Your task to perform on an android device: Empty the shopping cart on newegg. Add "dell xps" to the cart on newegg, then select checkout. Image 0: 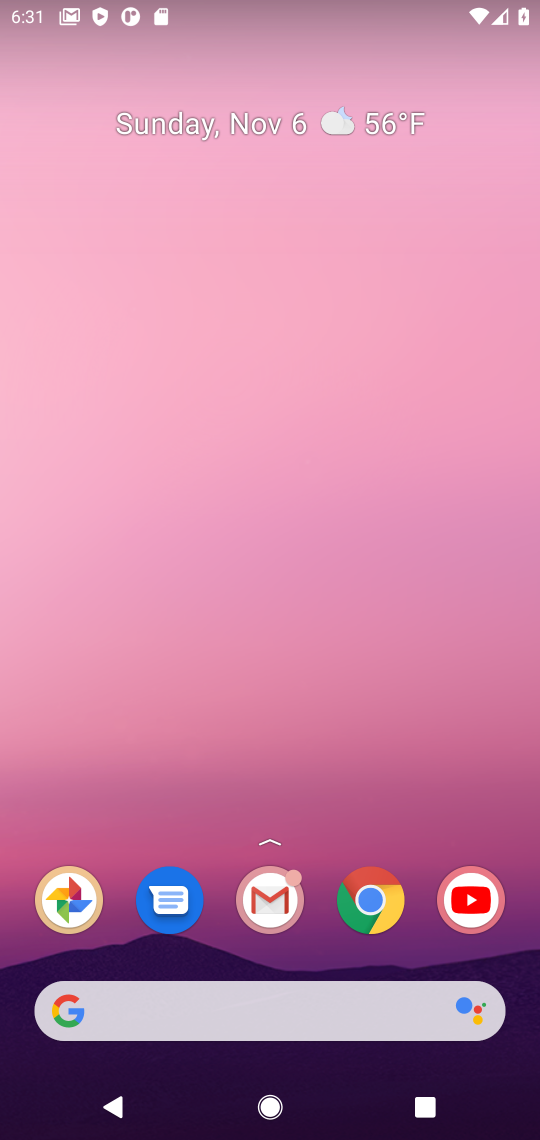
Step 0: drag from (371, 525) to (458, 54)
Your task to perform on an android device: Empty the shopping cart on newegg. Add "dell xps" to the cart on newegg, then select checkout. Image 1: 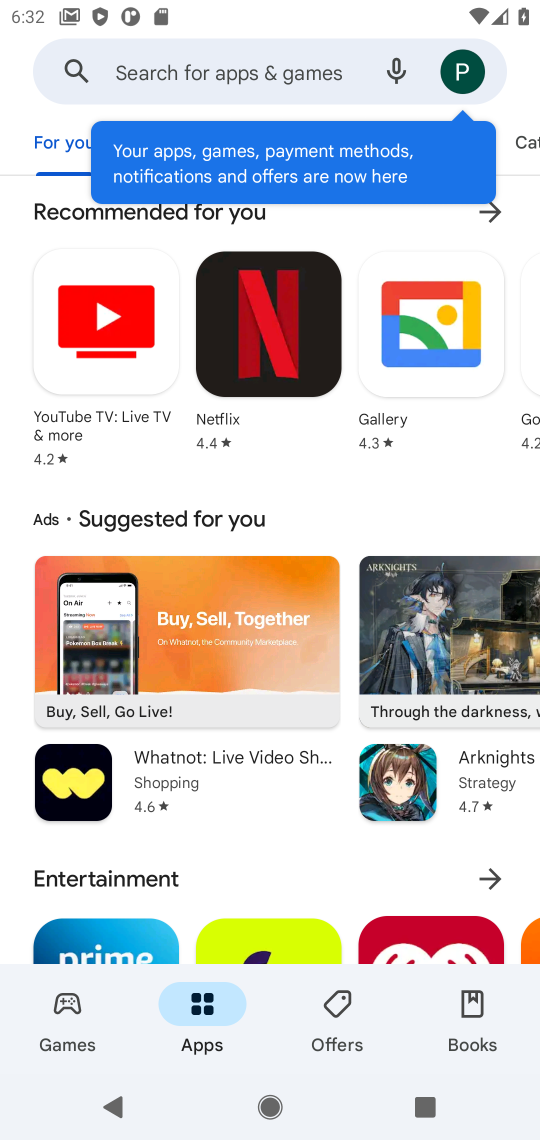
Step 1: press home button
Your task to perform on an android device: Empty the shopping cart on newegg. Add "dell xps" to the cart on newegg, then select checkout. Image 2: 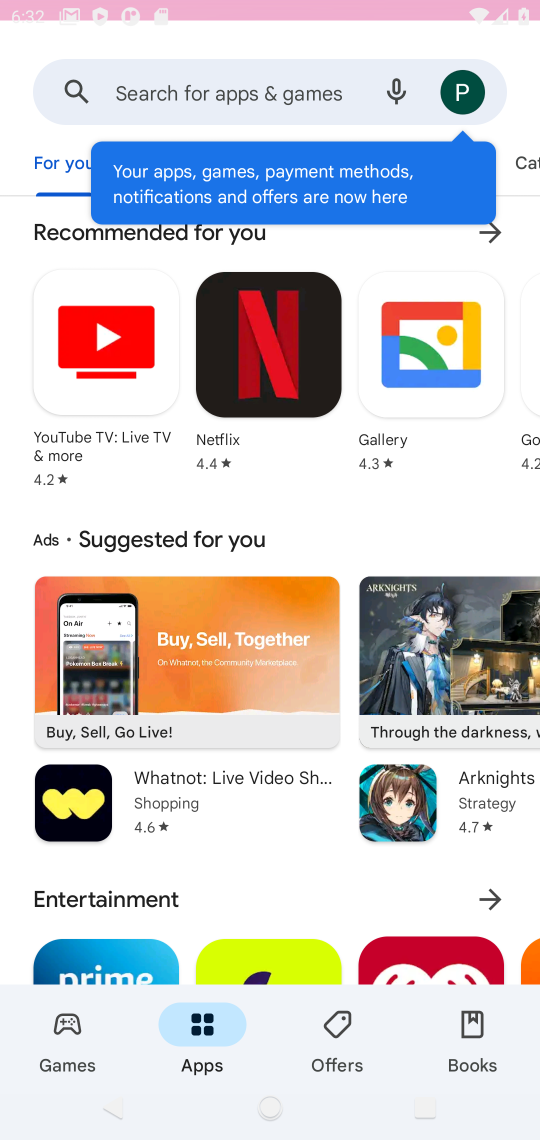
Step 2: press home button
Your task to perform on an android device: Empty the shopping cart on newegg. Add "dell xps" to the cart on newegg, then select checkout. Image 3: 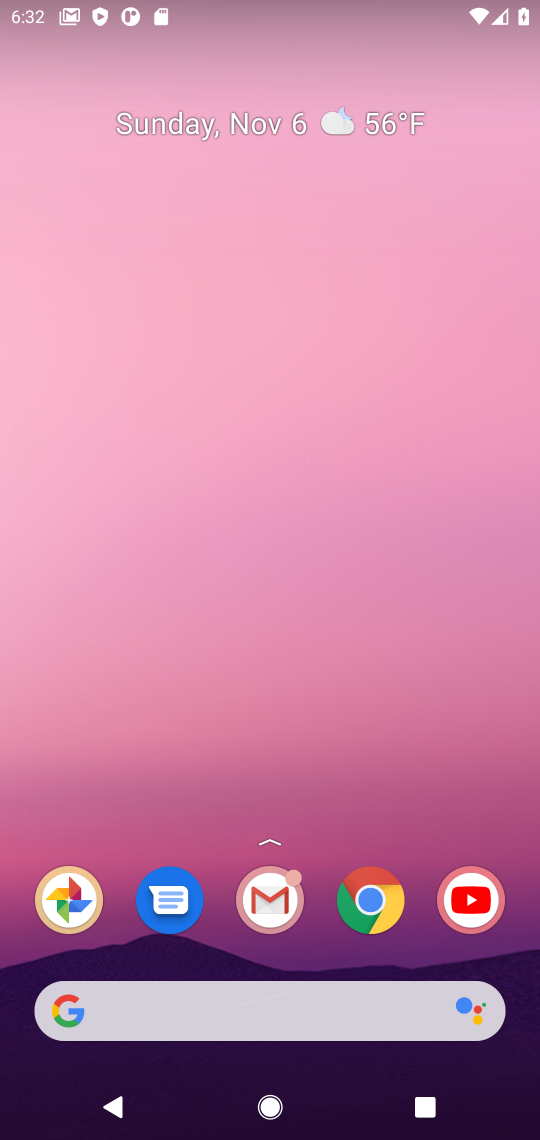
Step 3: drag from (343, 964) to (216, 133)
Your task to perform on an android device: Empty the shopping cart on newegg. Add "dell xps" to the cart on newegg, then select checkout. Image 4: 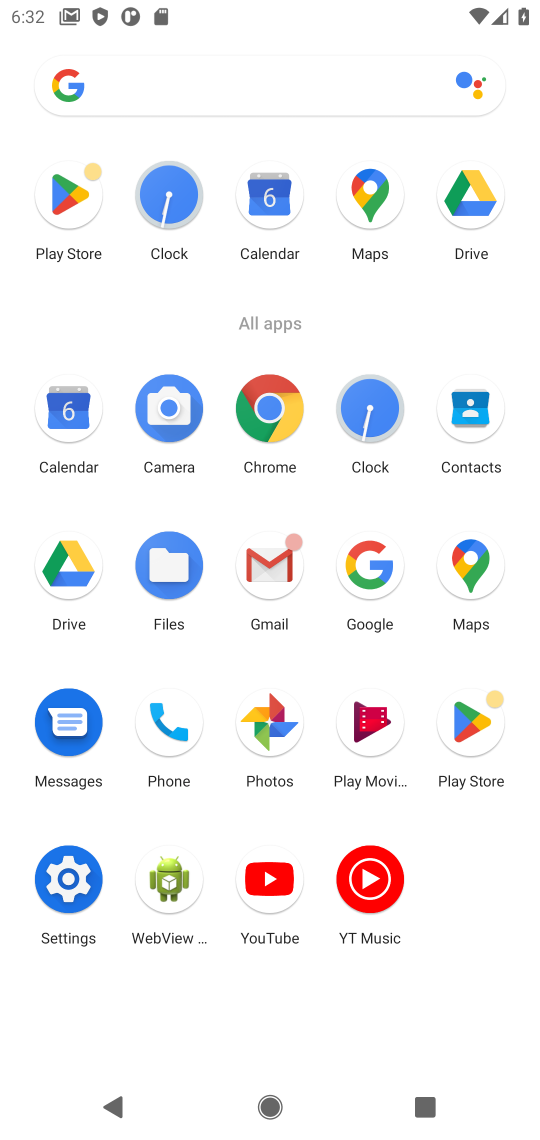
Step 4: click (277, 413)
Your task to perform on an android device: Empty the shopping cart on newegg. Add "dell xps" to the cart on newegg, then select checkout. Image 5: 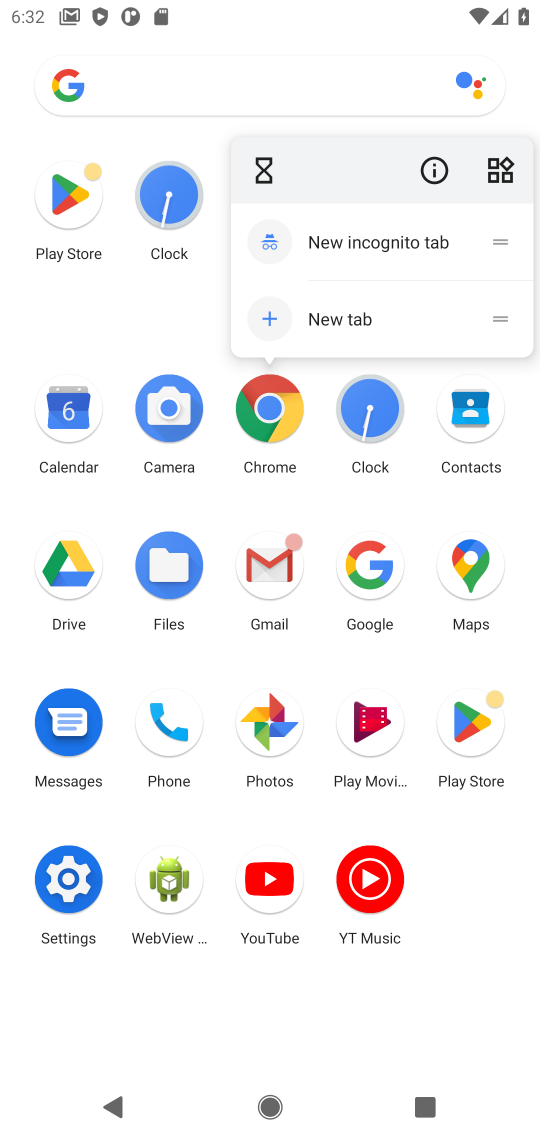
Step 5: click (268, 418)
Your task to perform on an android device: Empty the shopping cart on newegg. Add "dell xps" to the cart on newegg, then select checkout. Image 6: 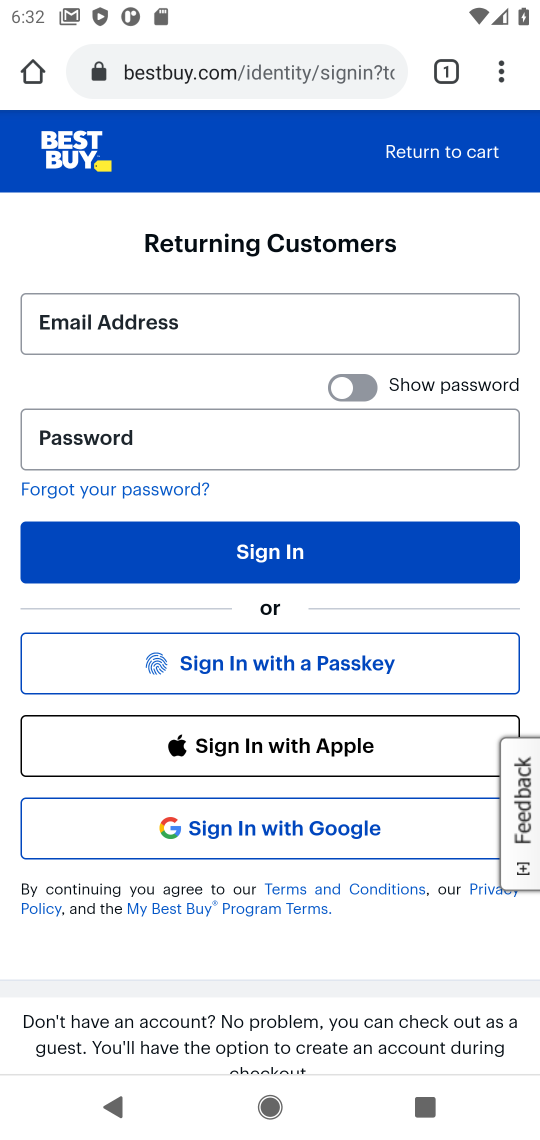
Step 6: click (307, 79)
Your task to perform on an android device: Empty the shopping cart on newegg. Add "dell xps" to the cart on newegg, then select checkout. Image 7: 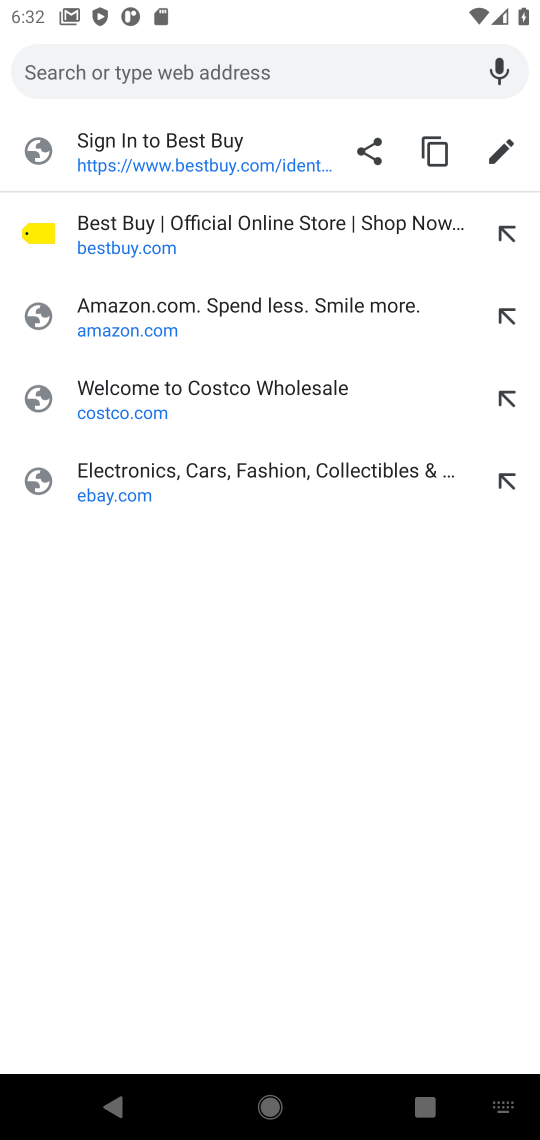
Step 7: type "newegg.com"
Your task to perform on an android device: Empty the shopping cart on newegg. Add "dell xps" to the cart on newegg, then select checkout. Image 8: 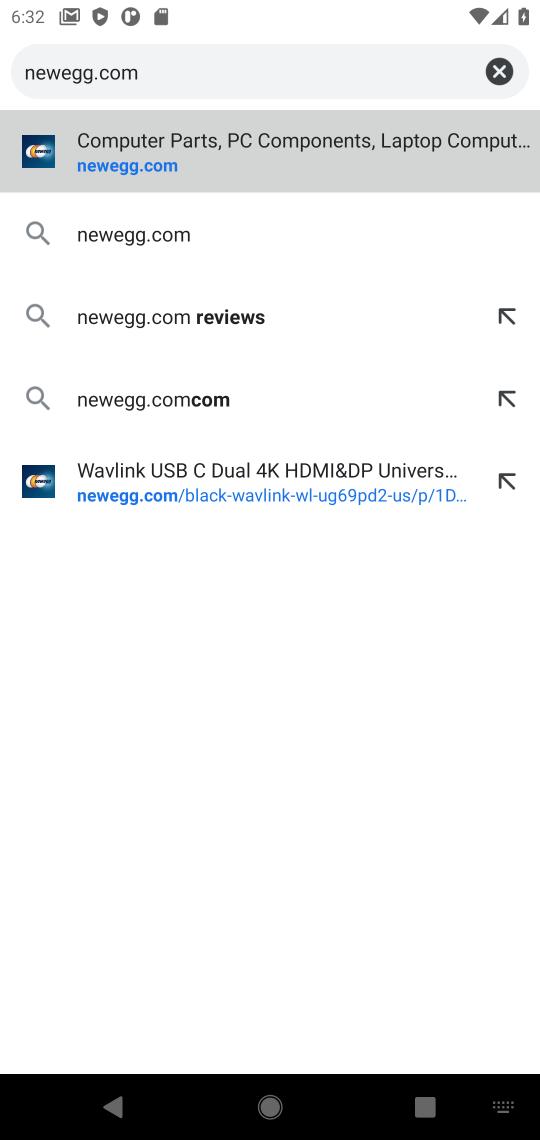
Step 8: press enter
Your task to perform on an android device: Empty the shopping cart on newegg. Add "dell xps" to the cart on newegg, then select checkout. Image 9: 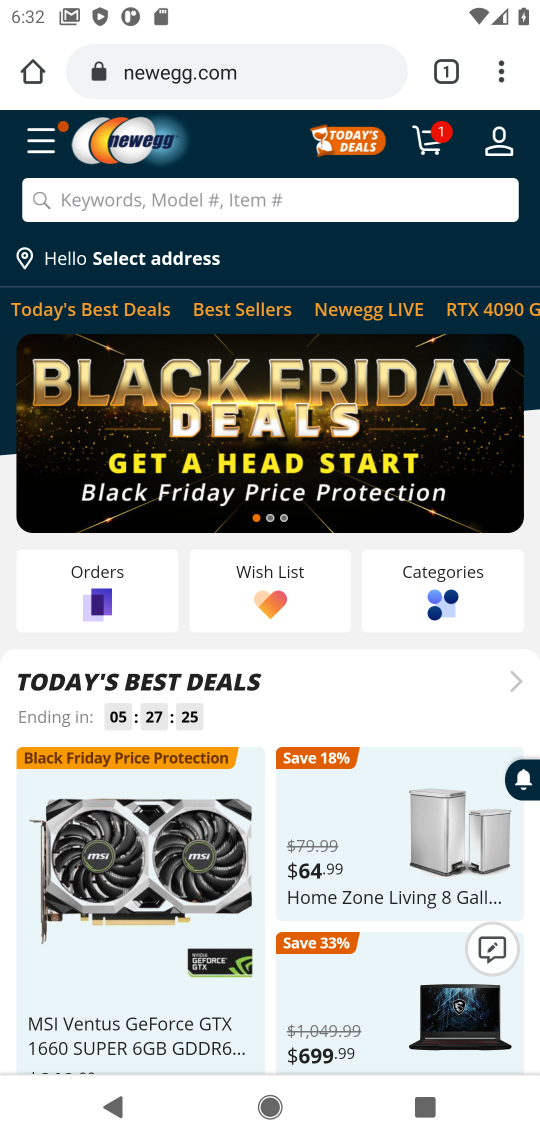
Step 9: click (288, 198)
Your task to perform on an android device: Empty the shopping cart on newegg. Add "dell xps" to the cart on newegg, then select checkout. Image 10: 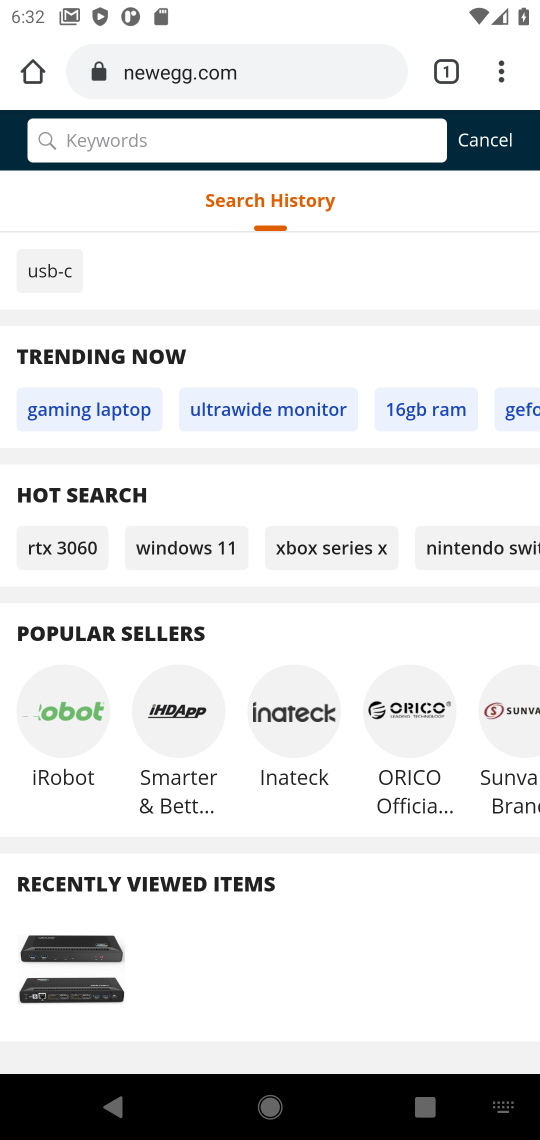
Step 10: type "dell xps"
Your task to perform on an android device: Empty the shopping cart on newegg. Add "dell xps" to the cart on newegg, then select checkout. Image 11: 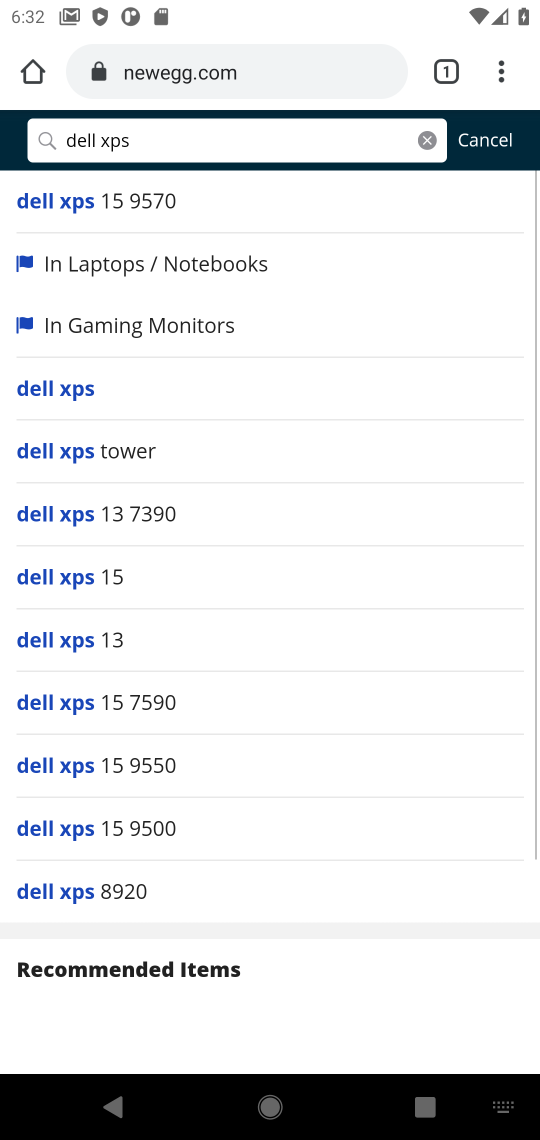
Step 11: press enter
Your task to perform on an android device: Empty the shopping cart on newegg. Add "dell xps" to the cart on newegg, then select checkout. Image 12: 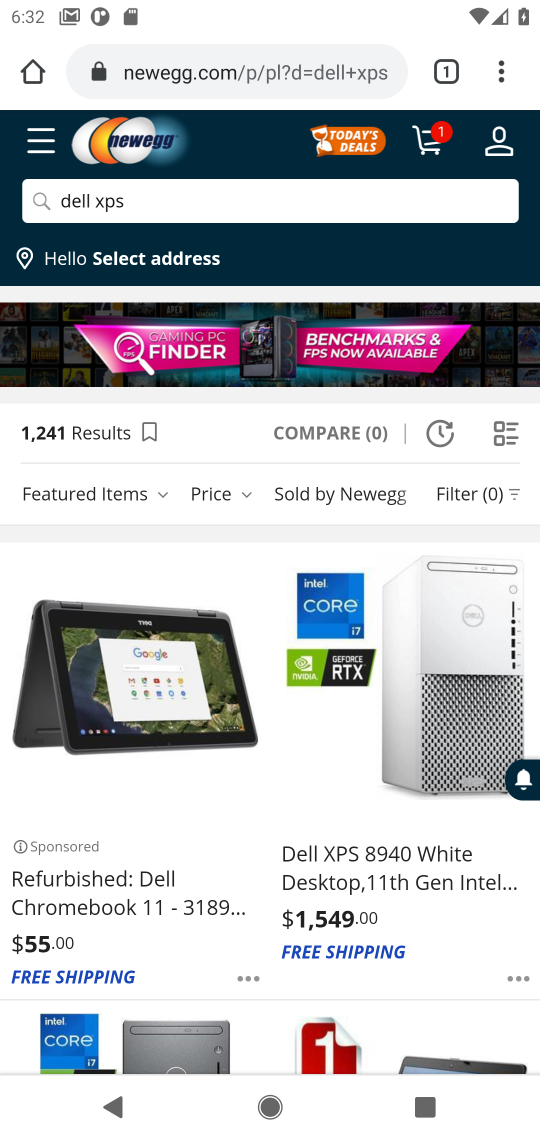
Step 12: click (384, 868)
Your task to perform on an android device: Empty the shopping cart on newegg. Add "dell xps" to the cart on newegg, then select checkout. Image 13: 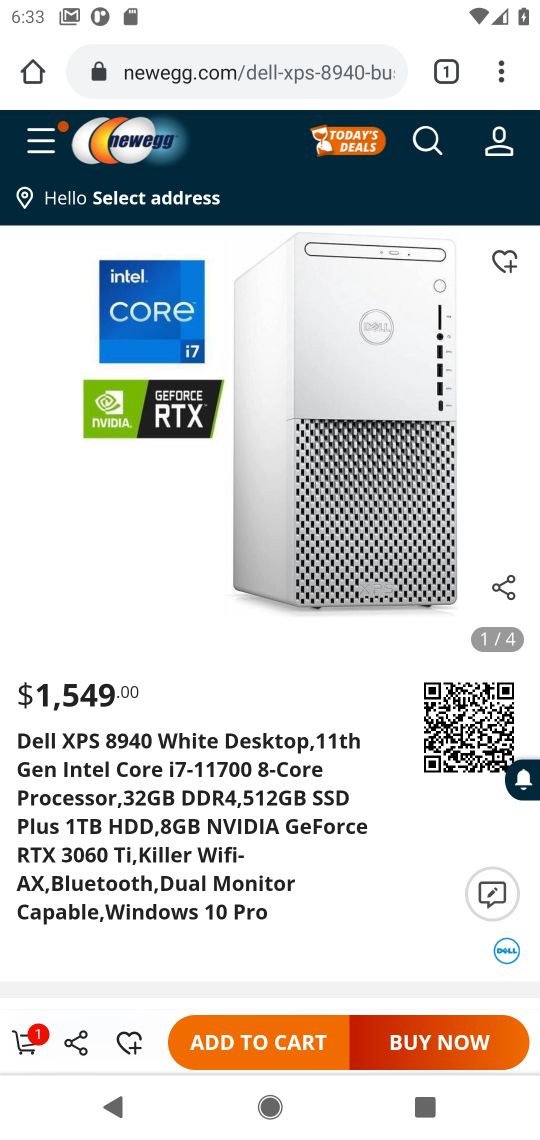
Step 13: click (47, 1028)
Your task to perform on an android device: Empty the shopping cart on newegg. Add "dell xps" to the cart on newegg, then select checkout. Image 14: 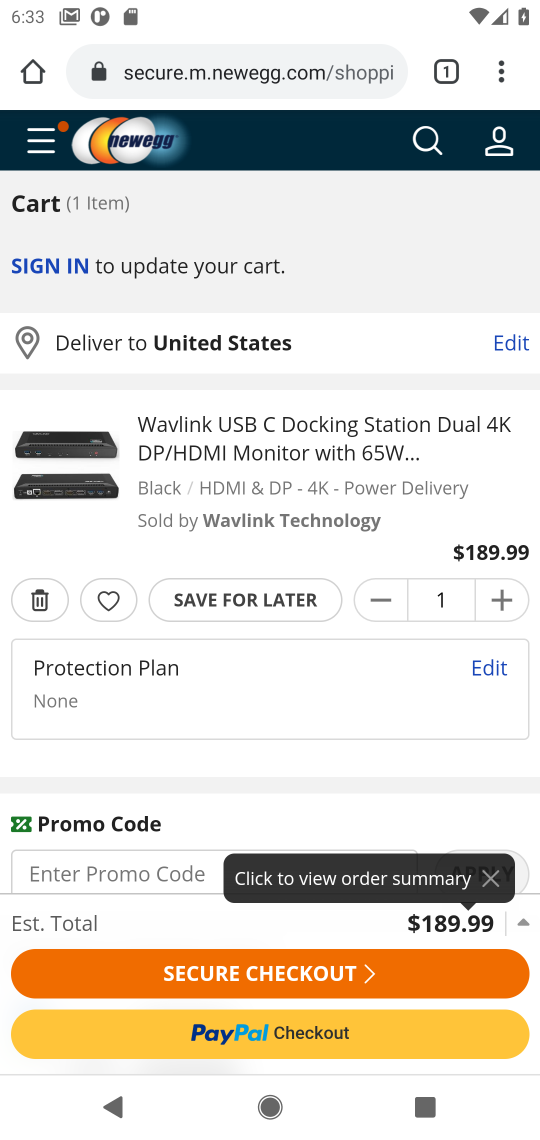
Step 14: click (252, 965)
Your task to perform on an android device: Empty the shopping cart on newegg. Add "dell xps" to the cart on newegg, then select checkout. Image 15: 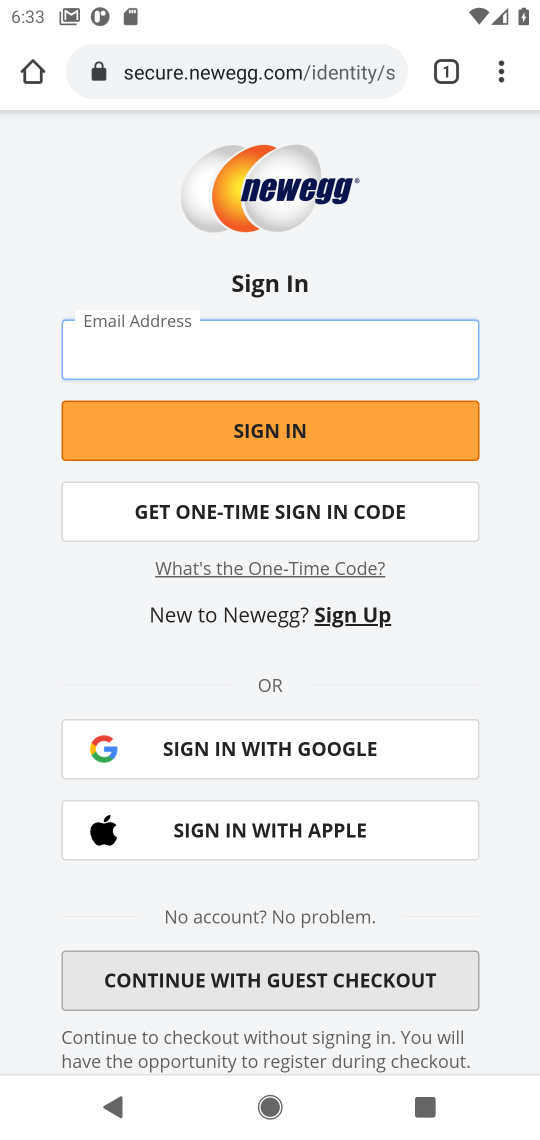
Step 15: task complete